Your task to perform on an android device: Show me productivity apps on the Play Store Image 0: 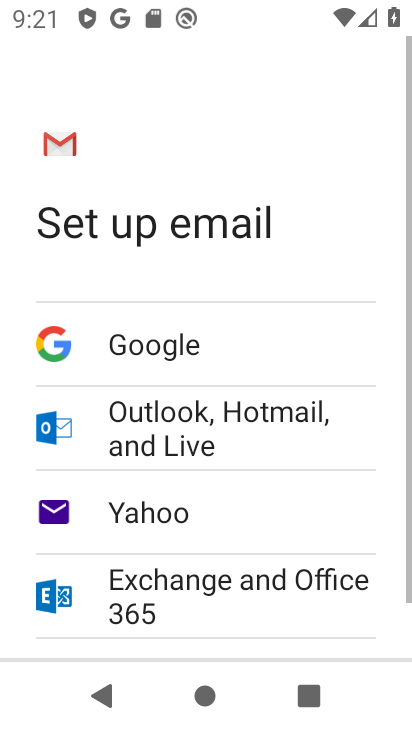
Step 0: press home button
Your task to perform on an android device: Show me productivity apps on the Play Store Image 1: 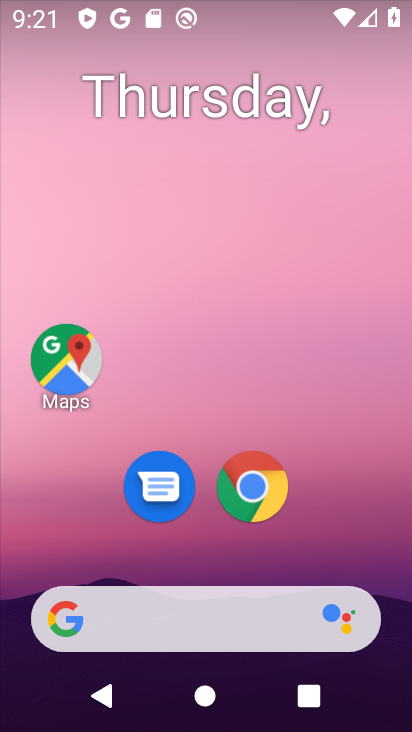
Step 1: drag from (199, 555) to (251, 27)
Your task to perform on an android device: Show me productivity apps on the Play Store Image 2: 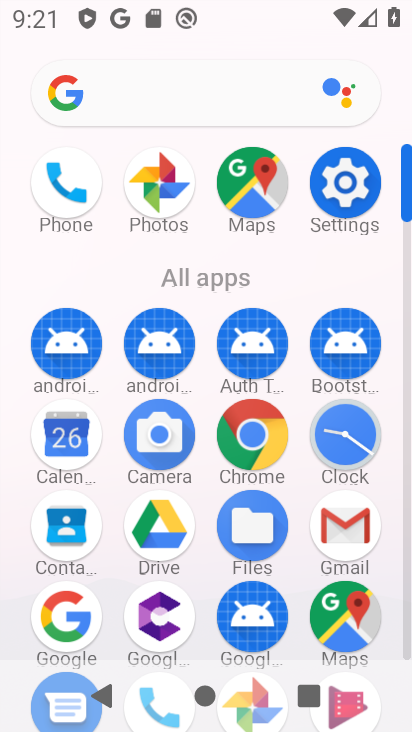
Step 2: drag from (204, 569) to (206, 200)
Your task to perform on an android device: Show me productivity apps on the Play Store Image 3: 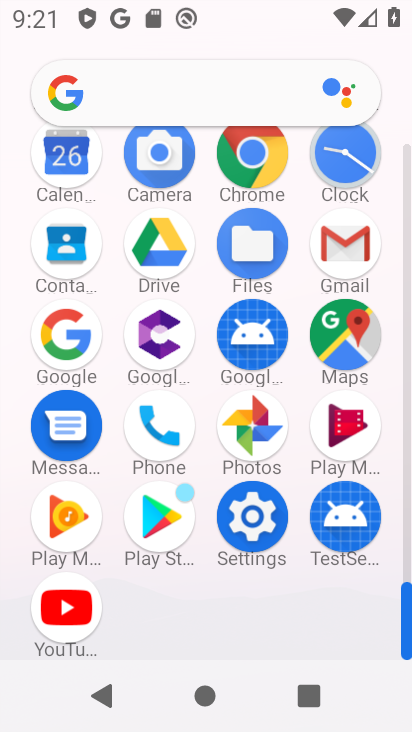
Step 3: click (172, 526)
Your task to perform on an android device: Show me productivity apps on the Play Store Image 4: 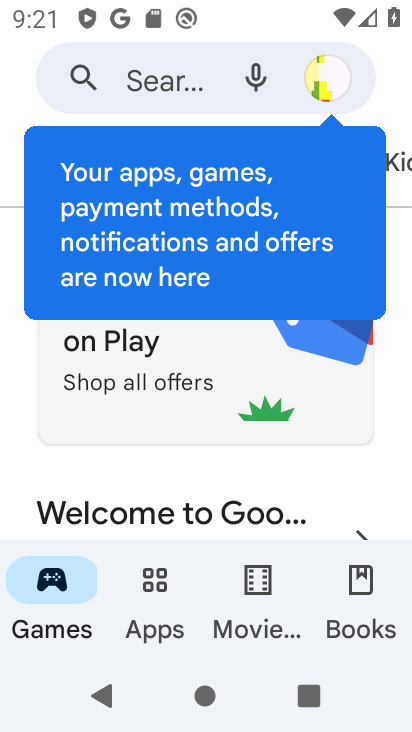
Step 4: click (150, 628)
Your task to perform on an android device: Show me productivity apps on the Play Store Image 5: 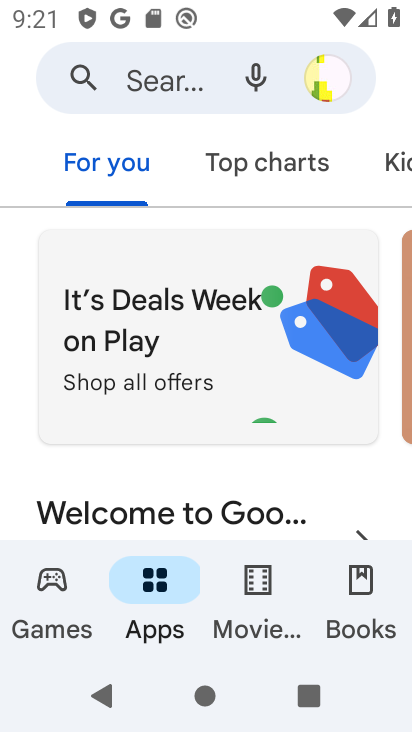
Step 5: drag from (385, 157) to (45, 132)
Your task to perform on an android device: Show me productivity apps on the Play Store Image 6: 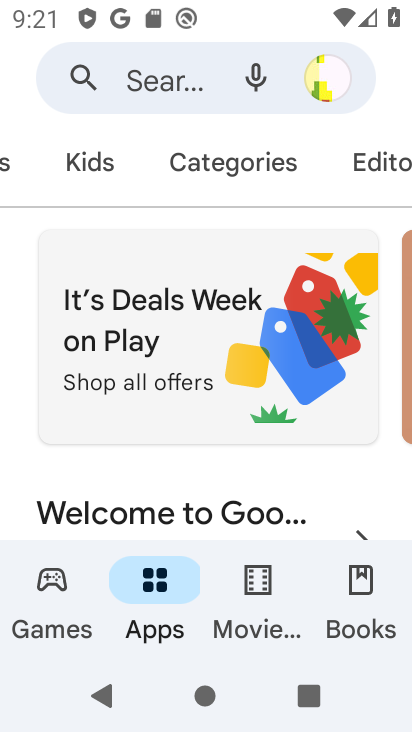
Step 6: click (224, 157)
Your task to perform on an android device: Show me productivity apps on the Play Store Image 7: 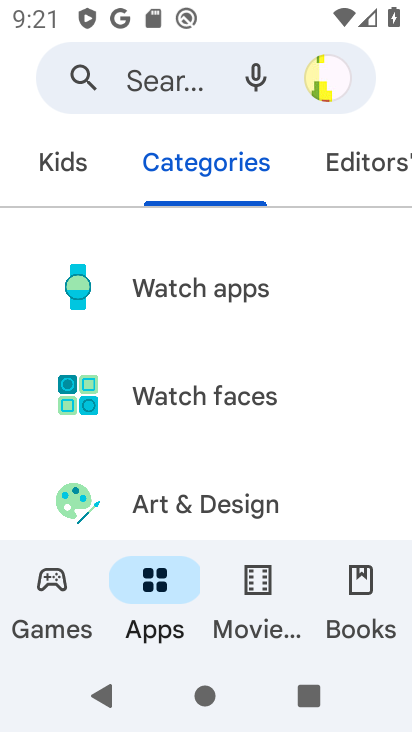
Step 7: drag from (214, 480) to (205, 144)
Your task to perform on an android device: Show me productivity apps on the Play Store Image 8: 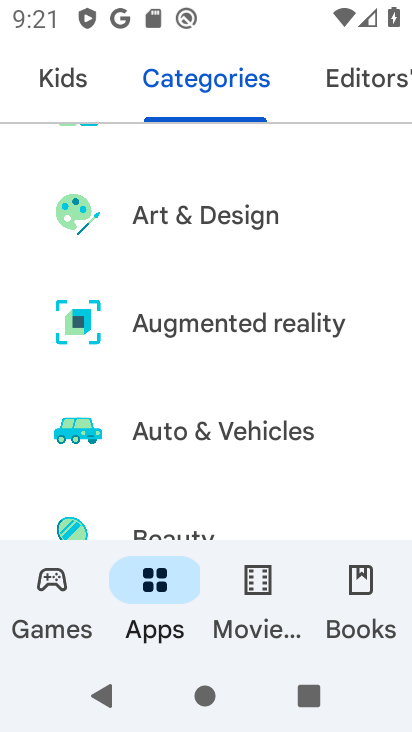
Step 8: drag from (222, 448) to (205, 24)
Your task to perform on an android device: Show me productivity apps on the Play Store Image 9: 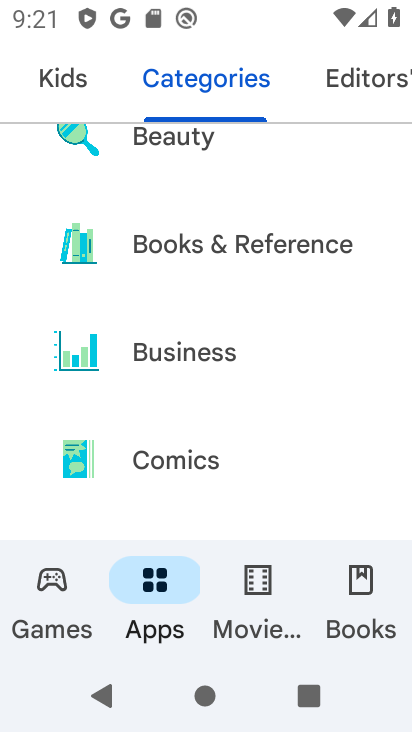
Step 9: drag from (203, 452) to (194, 48)
Your task to perform on an android device: Show me productivity apps on the Play Store Image 10: 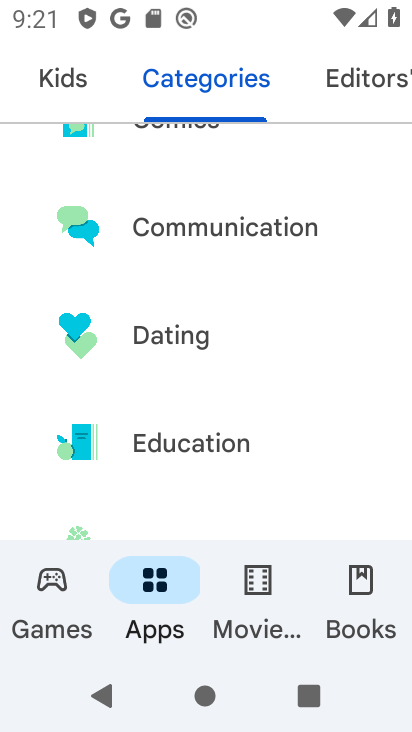
Step 10: drag from (194, 419) to (221, 46)
Your task to perform on an android device: Show me productivity apps on the Play Store Image 11: 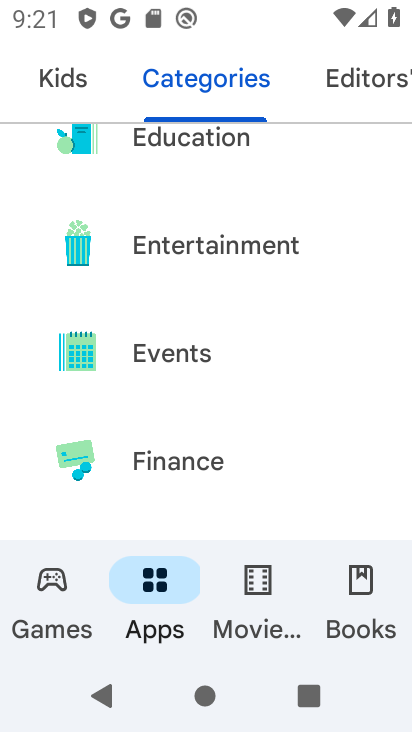
Step 11: drag from (166, 429) to (158, 24)
Your task to perform on an android device: Show me productivity apps on the Play Store Image 12: 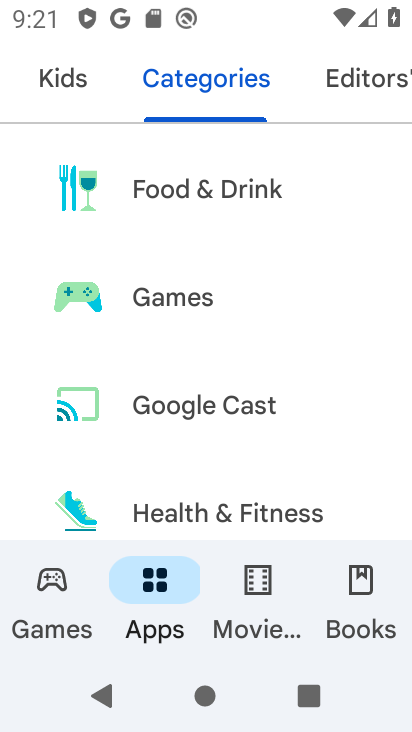
Step 12: drag from (180, 416) to (183, 22)
Your task to perform on an android device: Show me productivity apps on the Play Store Image 13: 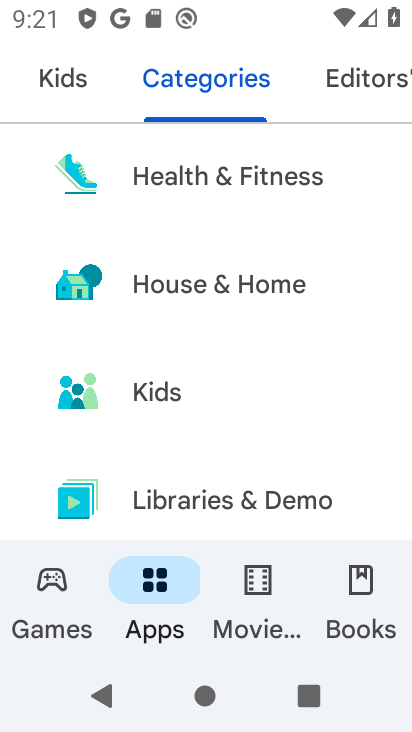
Step 13: drag from (183, 426) to (181, 86)
Your task to perform on an android device: Show me productivity apps on the Play Store Image 14: 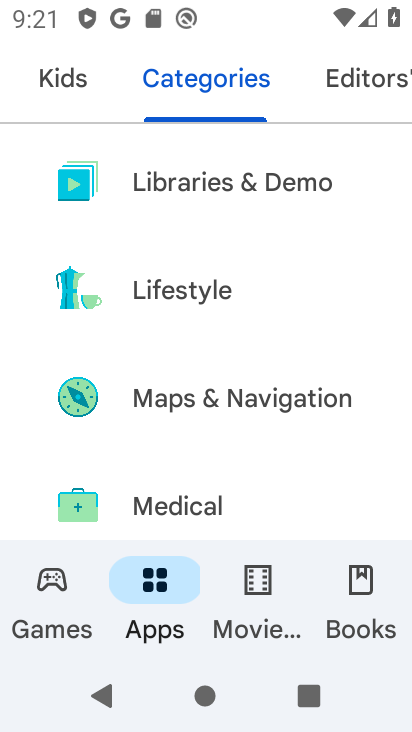
Step 14: drag from (144, 444) to (165, 4)
Your task to perform on an android device: Show me productivity apps on the Play Store Image 15: 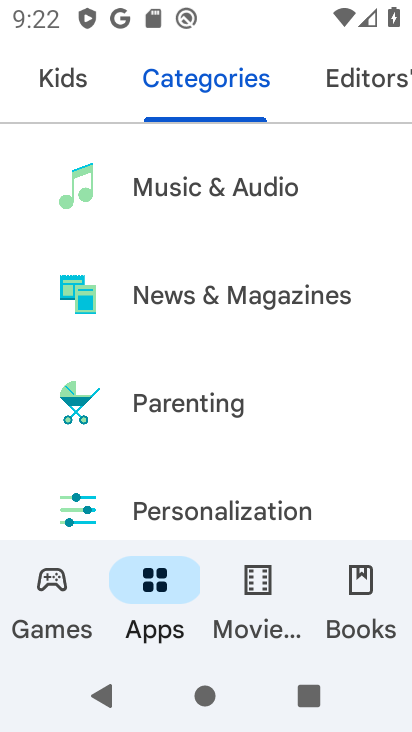
Step 15: drag from (220, 483) to (218, 195)
Your task to perform on an android device: Show me productivity apps on the Play Store Image 16: 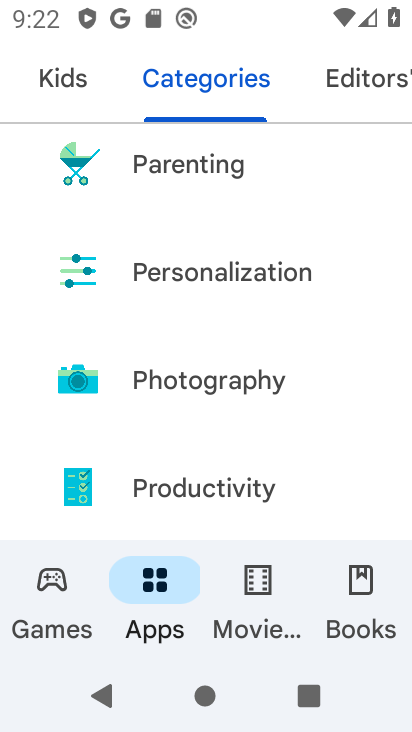
Step 16: click (187, 487)
Your task to perform on an android device: Show me productivity apps on the Play Store Image 17: 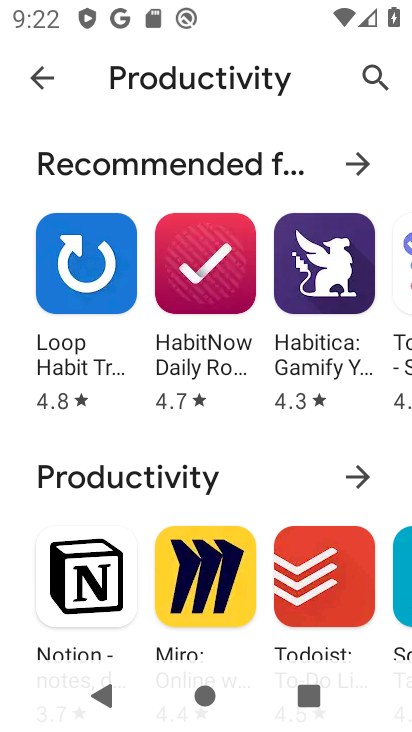
Step 17: task complete